Your task to perform on an android device: move an email to a new category in the gmail app Image 0: 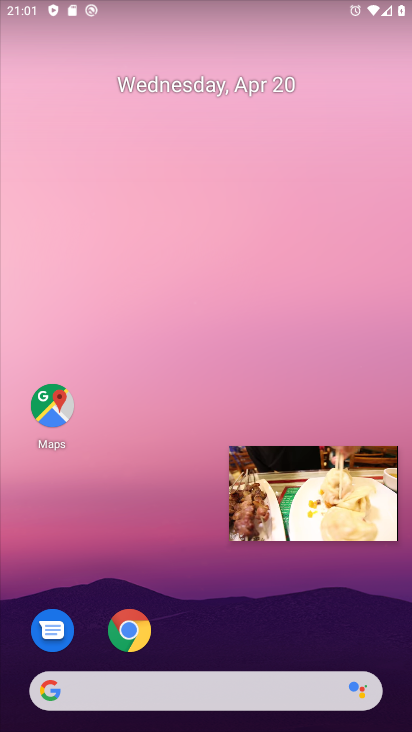
Step 0: drag from (197, 624) to (134, 104)
Your task to perform on an android device: move an email to a new category in the gmail app Image 1: 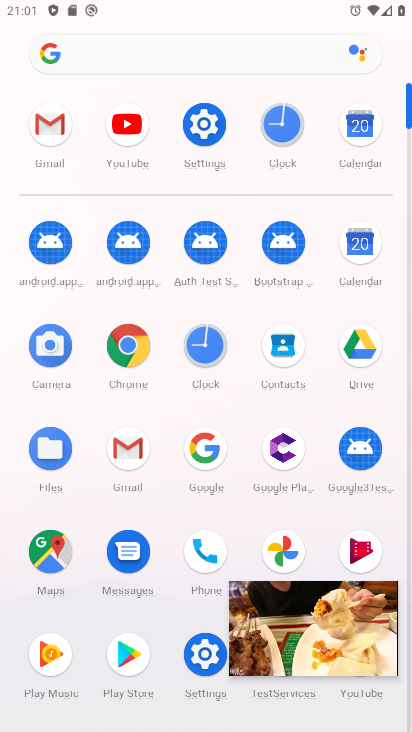
Step 1: click (39, 140)
Your task to perform on an android device: move an email to a new category in the gmail app Image 2: 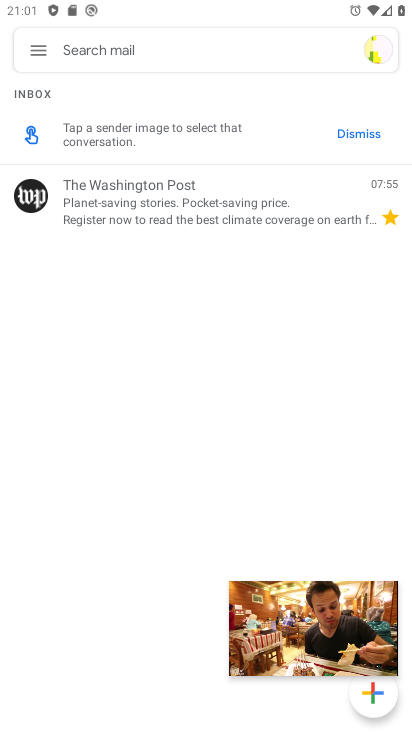
Step 2: click (287, 209)
Your task to perform on an android device: move an email to a new category in the gmail app Image 3: 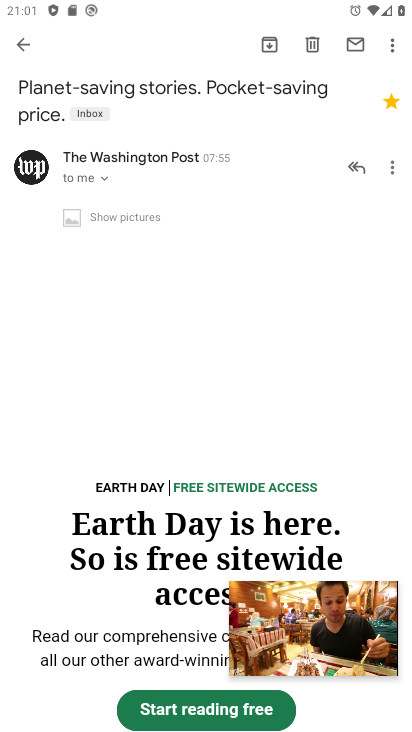
Step 3: click (388, 43)
Your task to perform on an android device: move an email to a new category in the gmail app Image 4: 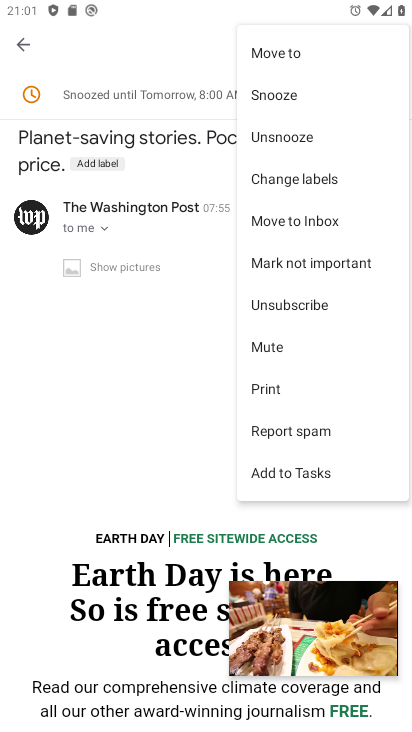
Step 4: click (279, 138)
Your task to perform on an android device: move an email to a new category in the gmail app Image 5: 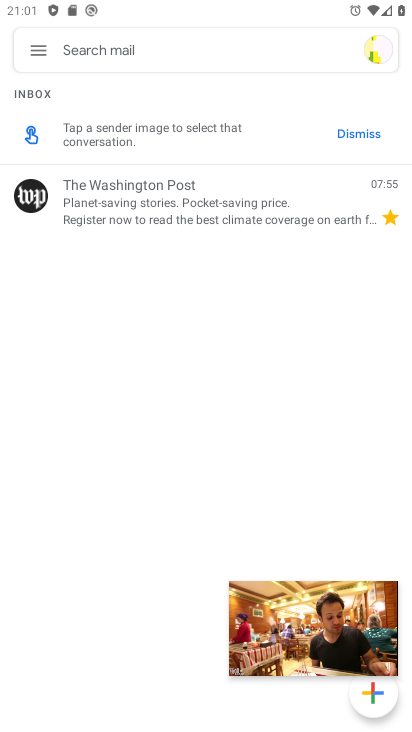
Step 5: task complete